Your task to perform on an android device: check data usage Image 0: 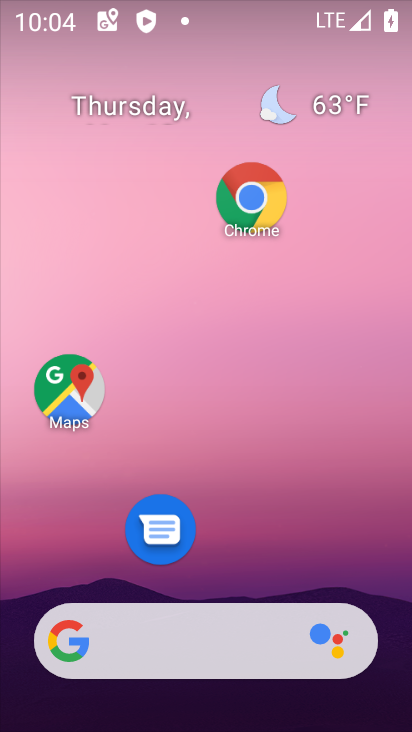
Step 0: drag from (261, 568) to (312, 98)
Your task to perform on an android device: check data usage Image 1: 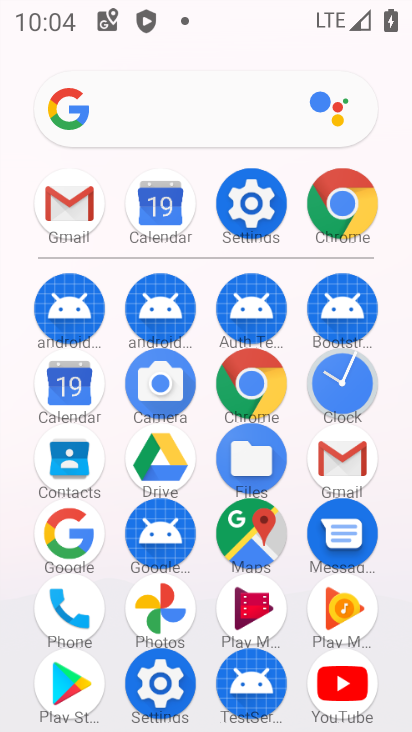
Step 1: click (255, 233)
Your task to perform on an android device: check data usage Image 2: 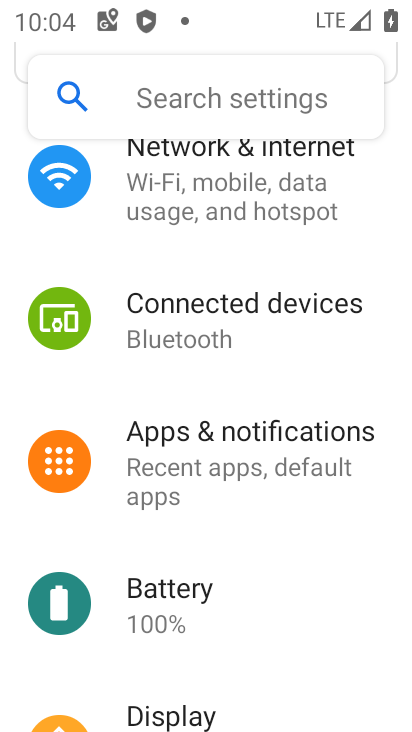
Step 2: drag from (236, 321) to (232, 599)
Your task to perform on an android device: check data usage Image 3: 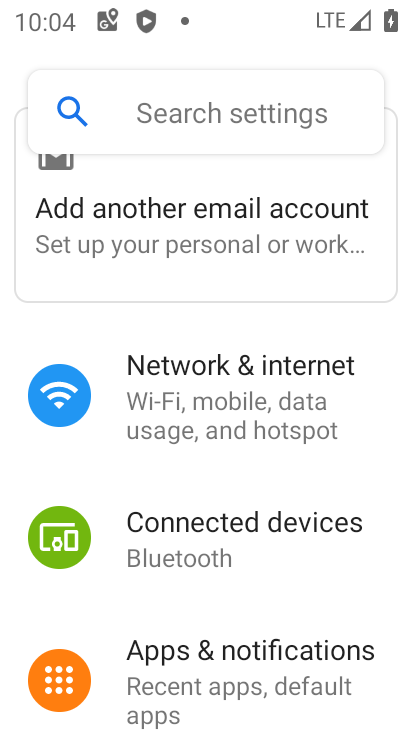
Step 3: drag from (229, 581) to (283, 195)
Your task to perform on an android device: check data usage Image 4: 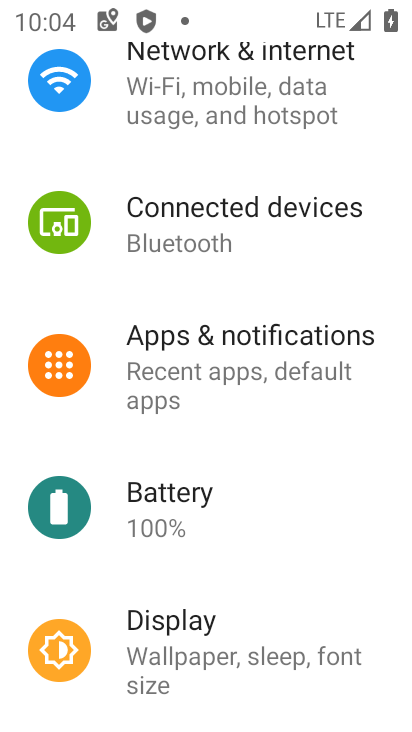
Step 4: click (255, 113)
Your task to perform on an android device: check data usage Image 5: 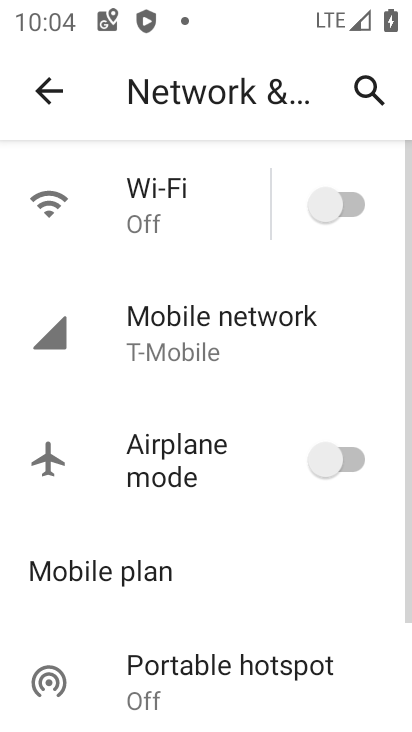
Step 5: drag from (207, 555) to (233, 234)
Your task to perform on an android device: check data usage Image 6: 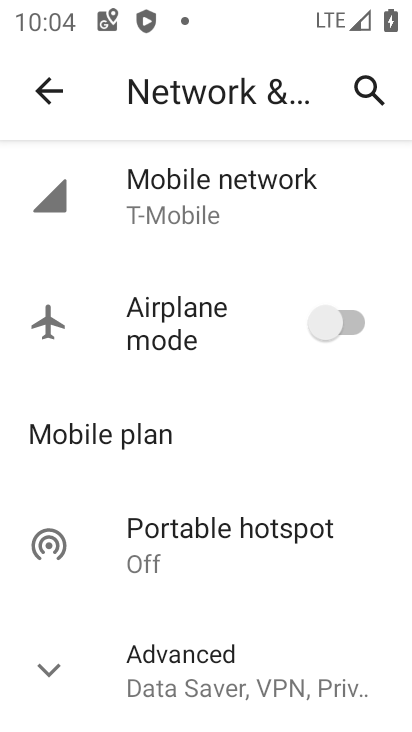
Step 6: drag from (215, 515) to (207, 715)
Your task to perform on an android device: check data usage Image 7: 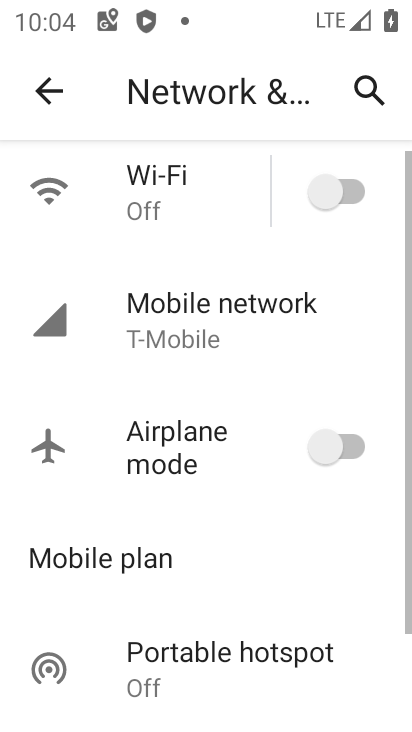
Step 7: click (217, 363)
Your task to perform on an android device: check data usage Image 8: 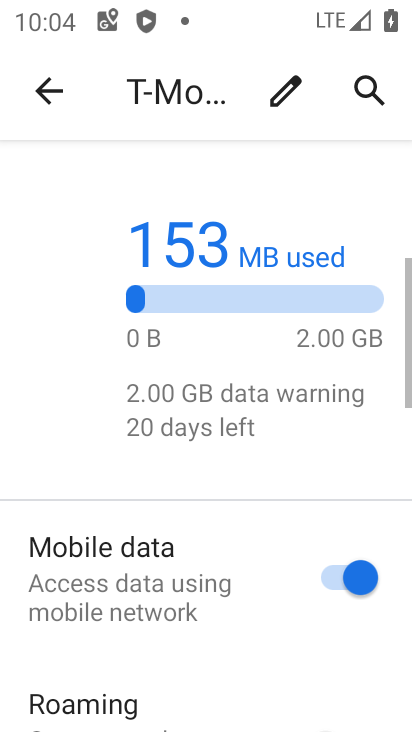
Step 8: drag from (193, 647) to (288, 165)
Your task to perform on an android device: check data usage Image 9: 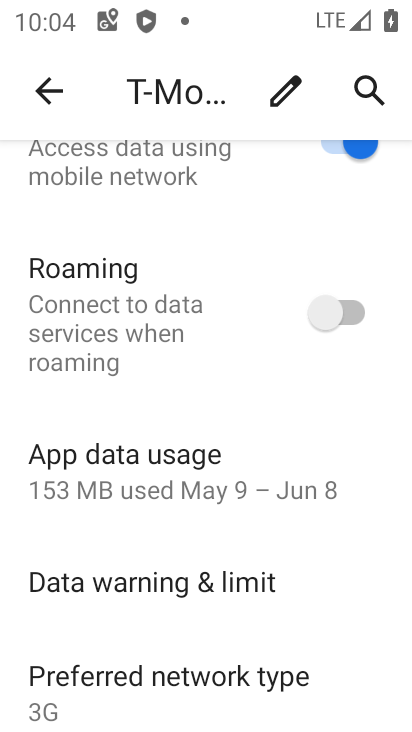
Step 9: click (246, 477)
Your task to perform on an android device: check data usage Image 10: 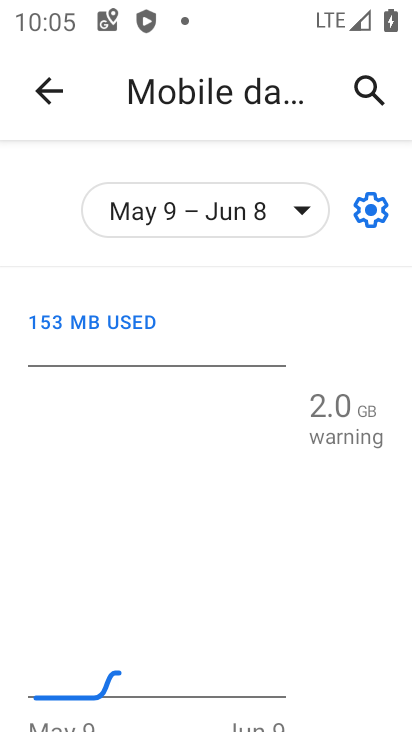
Step 10: task complete